Your task to perform on an android device: Go to notification settings Image 0: 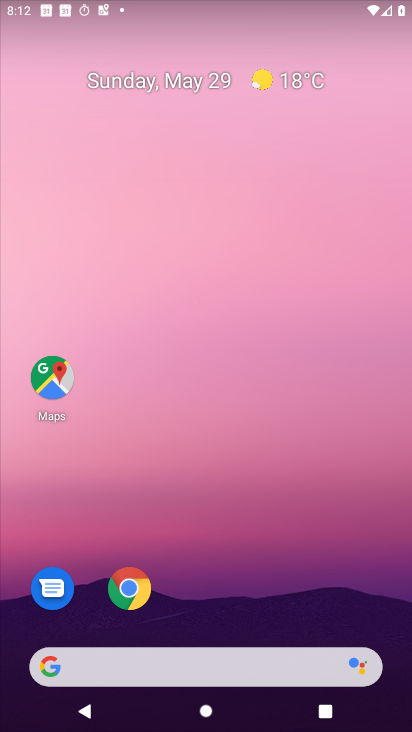
Step 0: drag from (232, 538) to (275, 74)
Your task to perform on an android device: Go to notification settings Image 1: 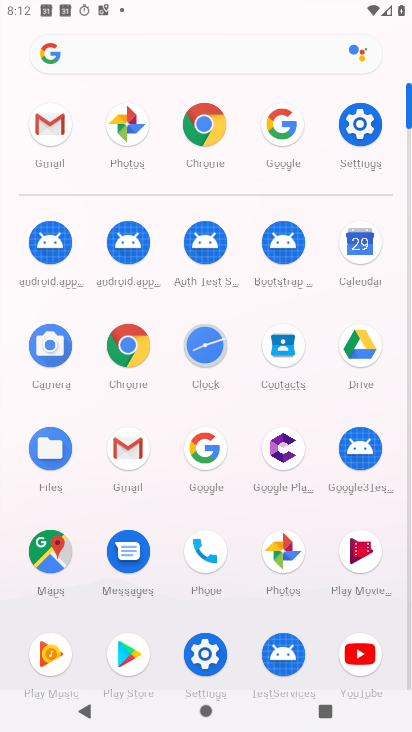
Step 1: click (357, 121)
Your task to perform on an android device: Go to notification settings Image 2: 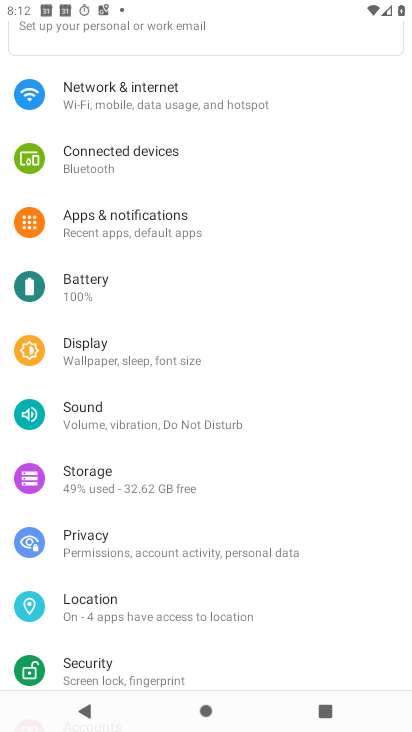
Step 2: click (136, 226)
Your task to perform on an android device: Go to notification settings Image 3: 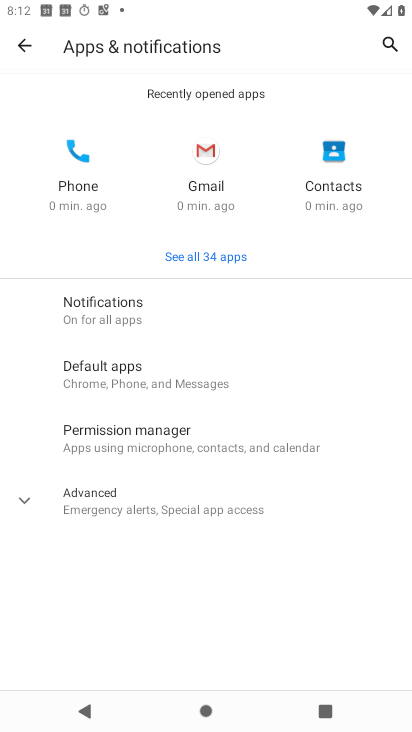
Step 3: click (139, 322)
Your task to perform on an android device: Go to notification settings Image 4: 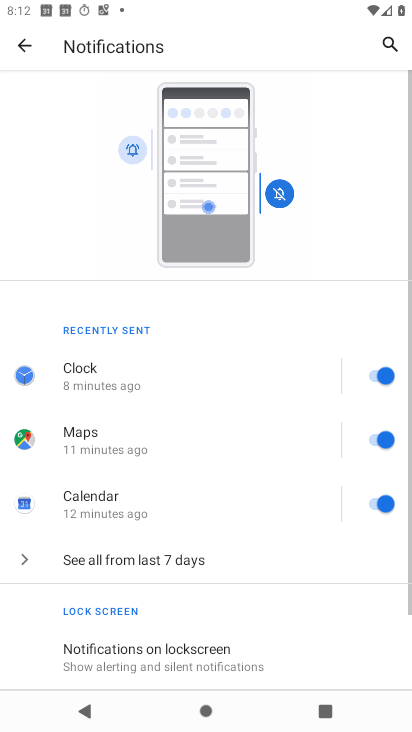
Step 4: task complete